Your task to perform on an android device: turn notification dots on Image 0: 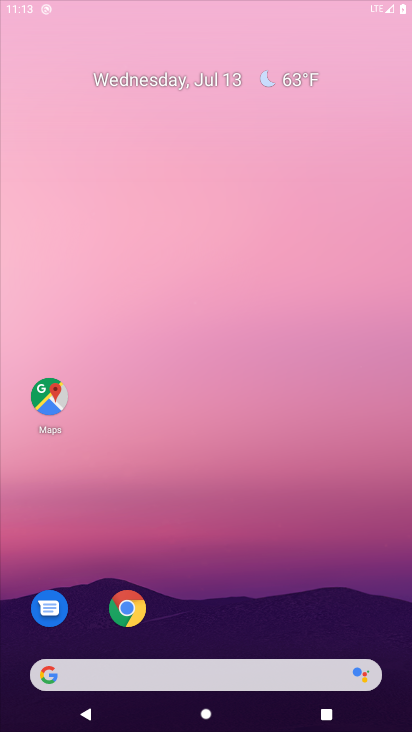
Step 0: drag from (304, 525) to (354, 67)
Your task to perform on an android device: turn notification dots on Image 1: 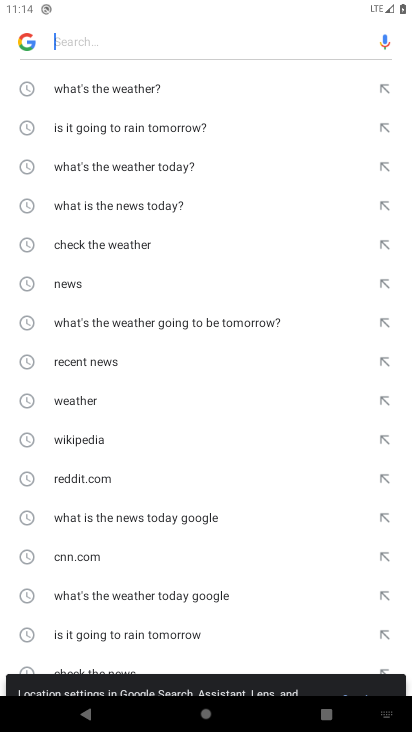
Step 1: press home button
Your task to perform on an android device: turn notification dots on Image 2: 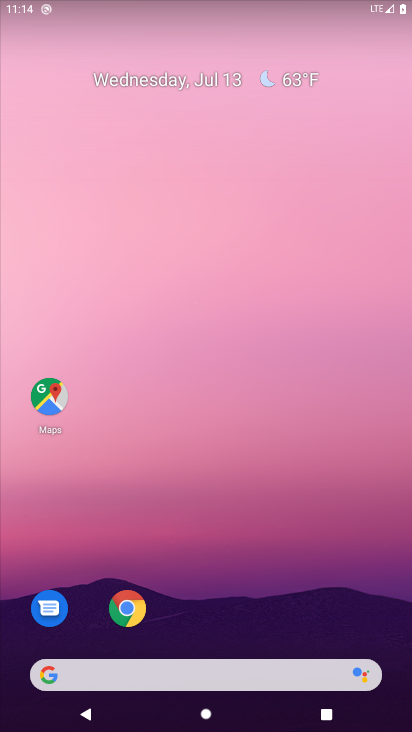
Step 2: drag from (235, 599) to (376, 6)
Your task to perform on an android device: turn notification dots on Image 3: 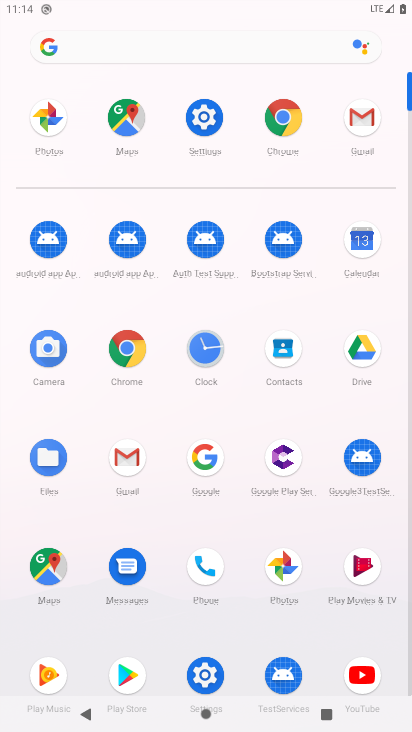
Step 3: click (205, 664)
Your task to perform on an android device: turn notification dots on Image 4: 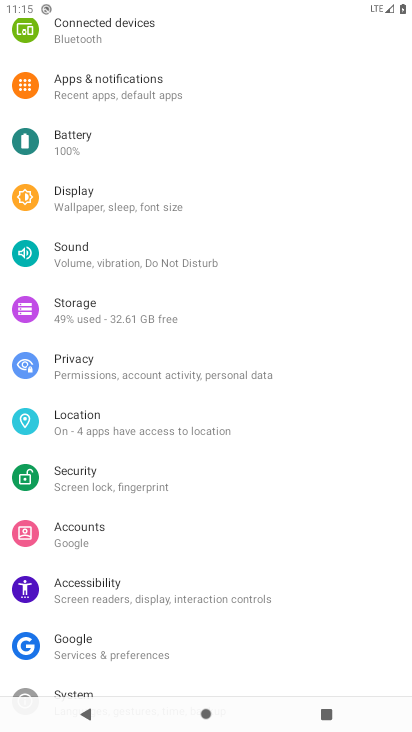
Step 4: drag from (304, 641) to (395, 118)
Your task to perform on an android device: turn notification dots on Image 5: 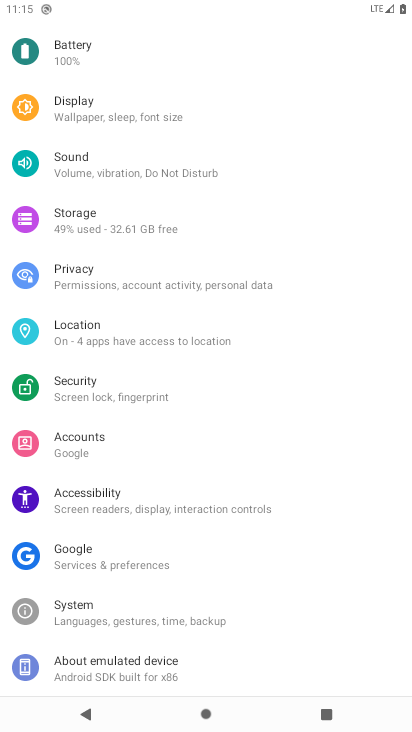
Step 5: drag from (190, 133) to (71, 492)
Your task to perform on an android device: turn notification dots on Image 6: 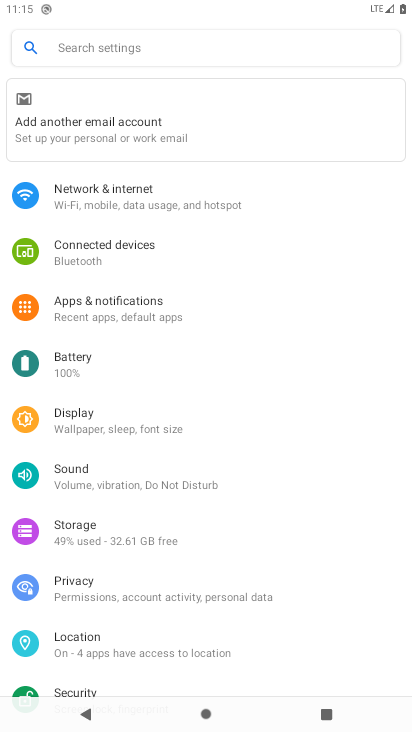
Step 6: click (149, 302)
Your task to perform on an android device: turn notification dots on Image 7: 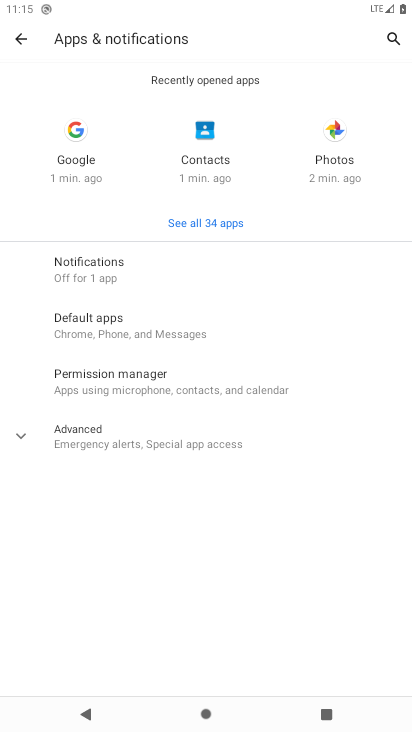
Step 7: click (153, 265)
Your task to perform on an android device: turn notification dots on Image 8: 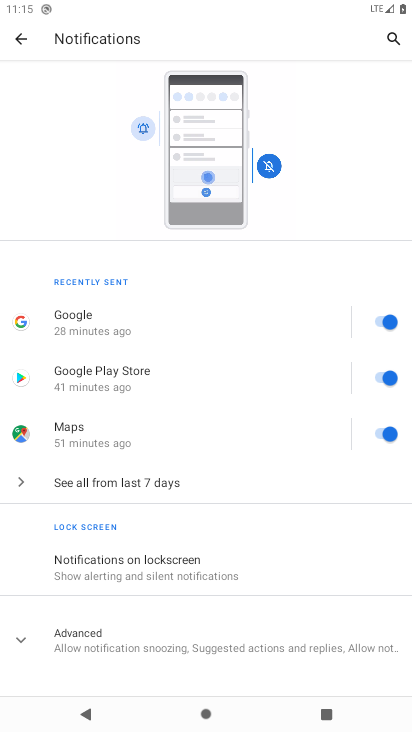
Step 8: drag from (279, 601) to (305, 431)
Your task to perform on an android device: turn notification dots on Image 9: 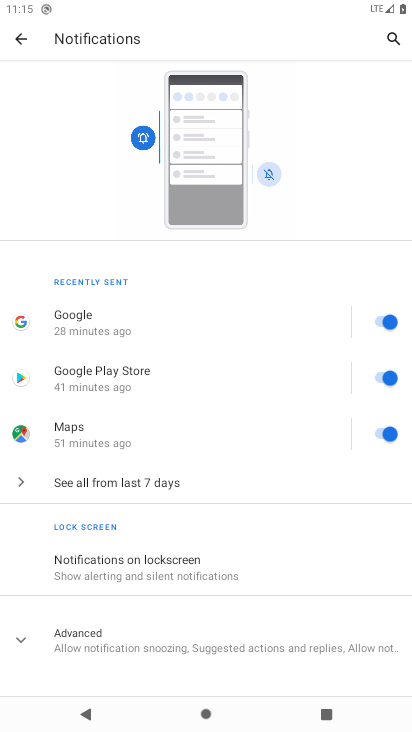
Step 9: click (237, 651)
Your task to perform on an android device: turn notification dots on Image 10: 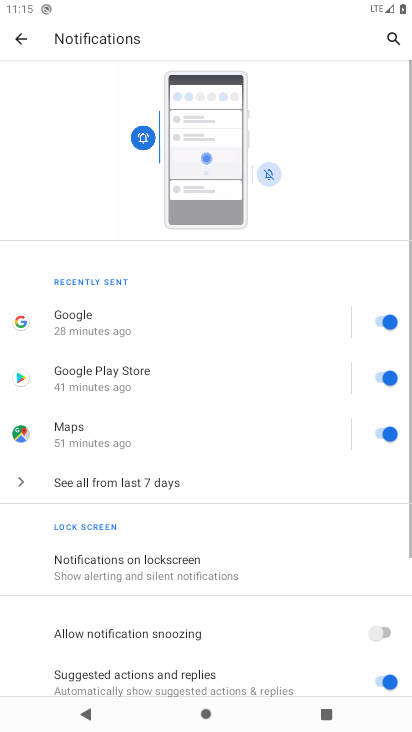
Step 10: drag from (239, 647) to (316, 374)
Your task to perform on an android device: turn notification dots on Image 11: 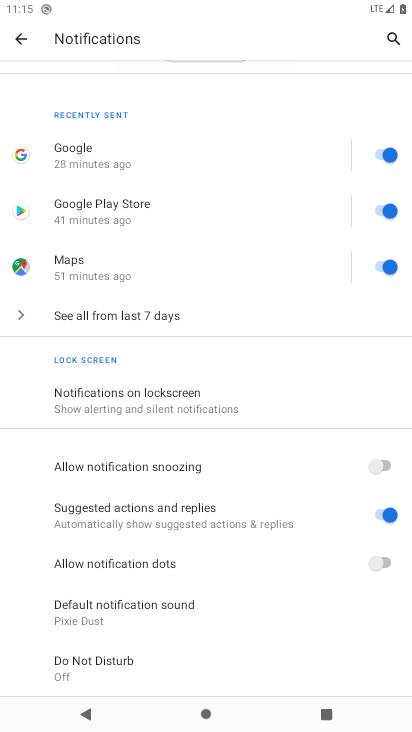
Step 11: click (383, 559)
Your task to perform on an android device: turn notification dots on Image 12: 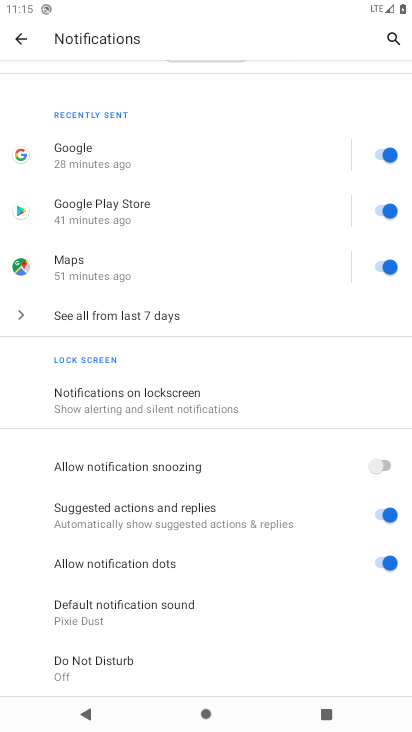
Step 12: task complete